Your task to perform on an android device: turn on javascript in the chrome app Image 0: 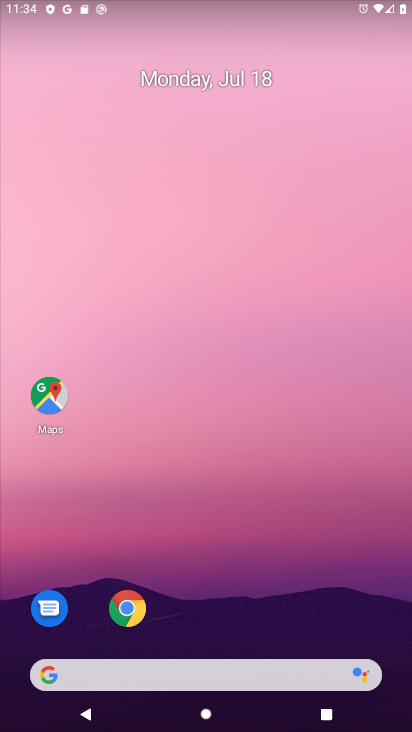
Step 0: click (123, 605)
Your task to perform on an android device: turn on javascript in the chrome app Image 1: 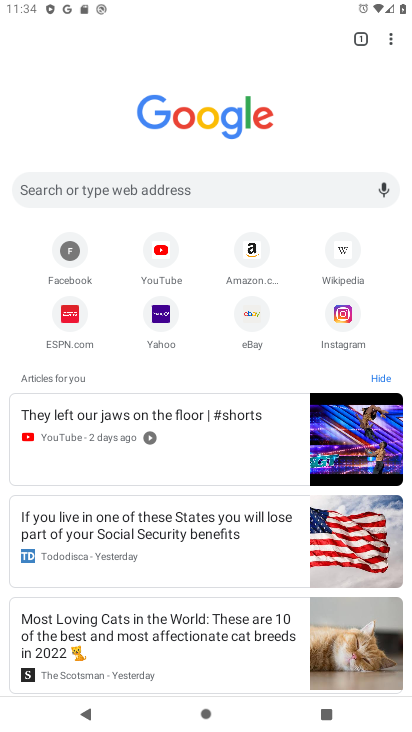
Step 1: click (395, 33)
Your task to perform on an android device: turn on javascript in the chrome app Image 2: 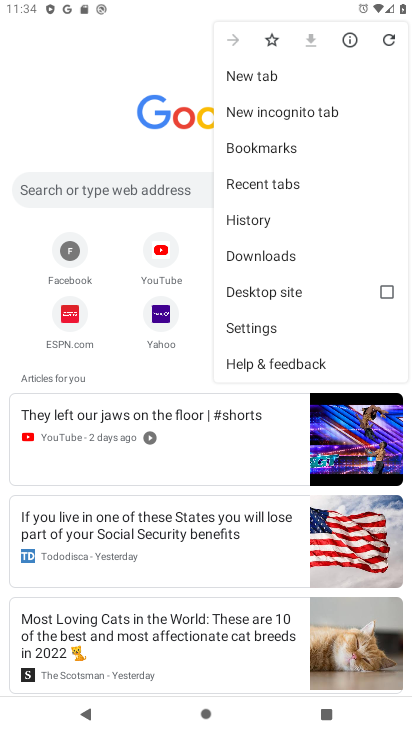
Step 2: click (257, 325)
Your task to perform on an android device: turn on javascript in the chrome app Image 3: 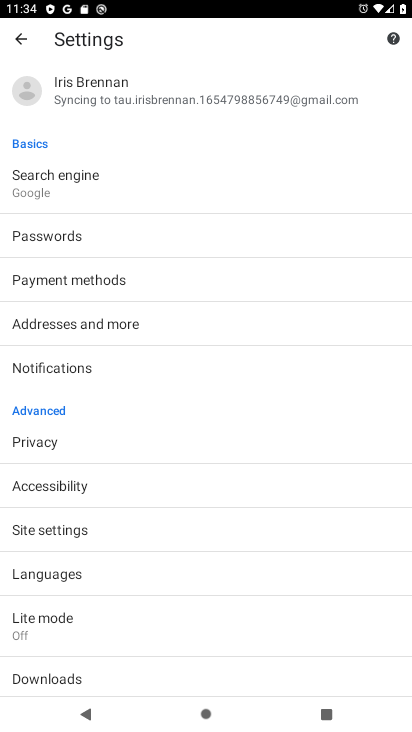
Step 3: click (67, 529)
Your task to perform on an android device: turn on javascript in the chrome app Image 4: 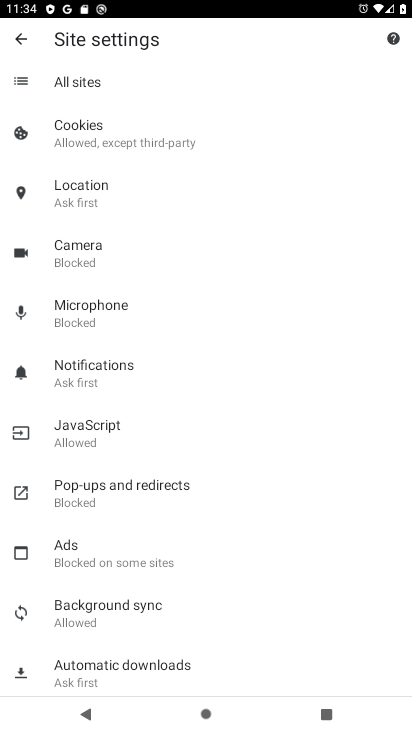
Step 4: click (94, 424)
Your task to perform on an android device: turn on javascript in the chrome app Image 5: 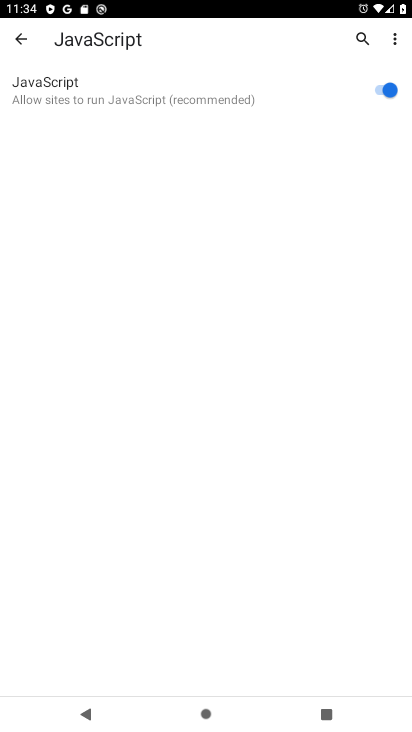
Step 5: task complete